Your task to perform on an android device: Is it going to rain this weekend? Image 0: 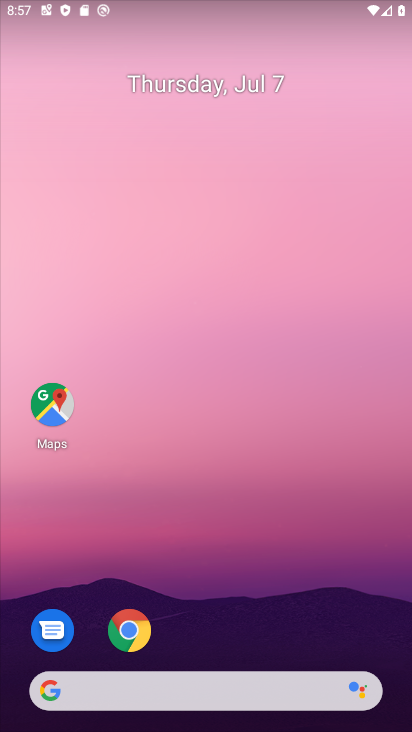
Step 0: drag from (257, 619) to (311, 89)
Your task to perform on an android device: Is it going to rain this weekend? Image 1: 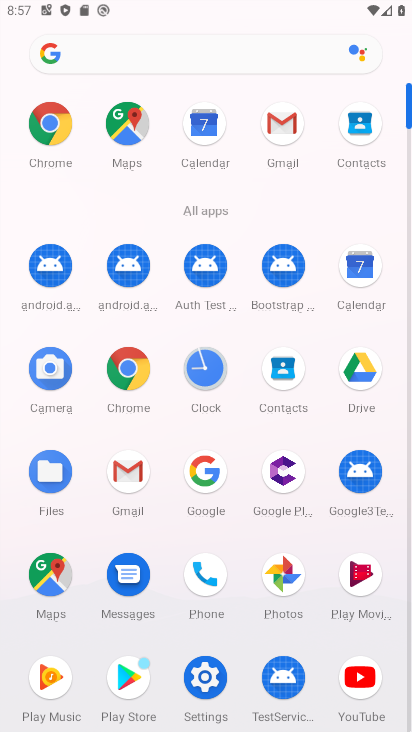
Step 1: click (125, 372)
Your task to perform on an android device: Is it going to rain this weekend? Image 2: 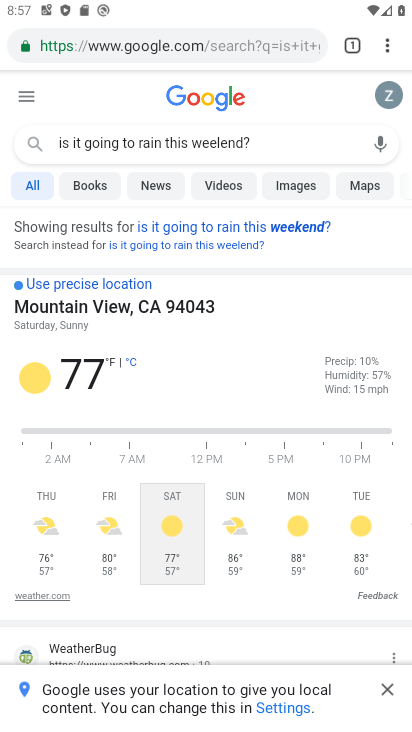
Step 2: click (205, 39)
Your task to perform on an android device: Is it going to rain this weekend? Image 3: 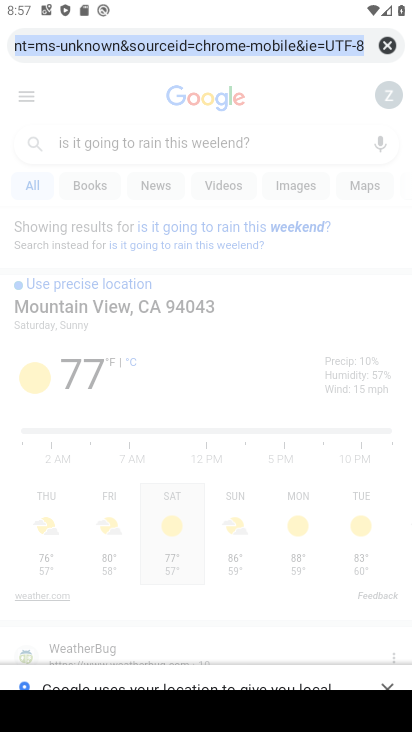
Step 3: click (381, 48)
Your task to perform on an android device: Is it going to rain this weekend? Image 4: 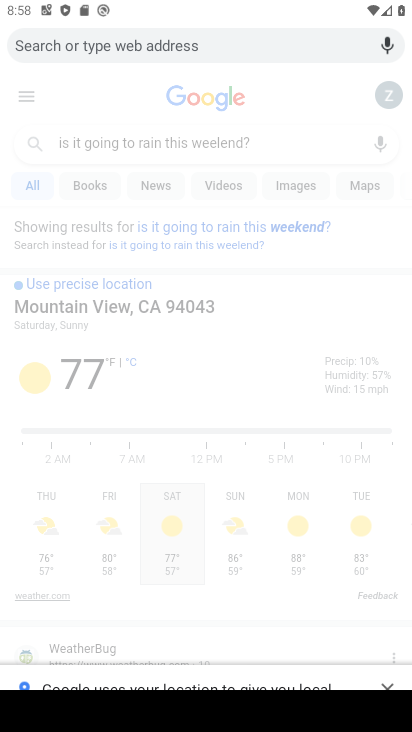
Step 4: type "is it going to rain this weekend ?"
Your task to perform on an android device: Is it going to rain this weekend? Image 5: 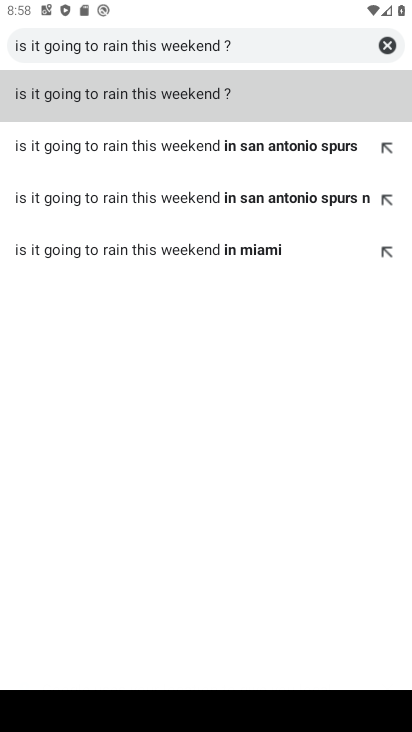
Step 5: click (98, 99)
Your task to perform on an android device: Is it going to rain this weekend? Image 6: 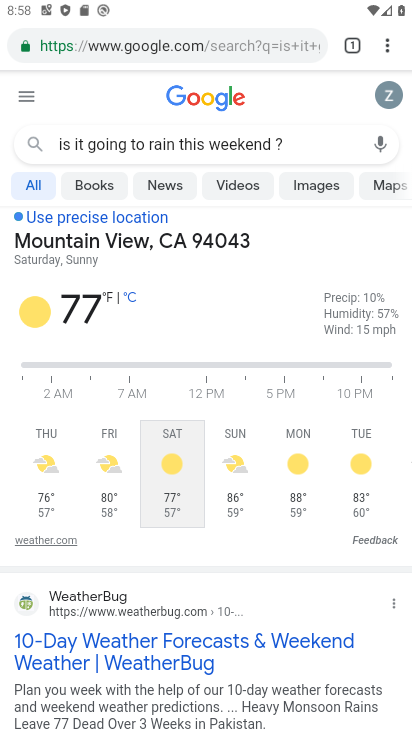
Step 6: task complete